Your task to perform on an android device: Open Wikipedia Image 0: 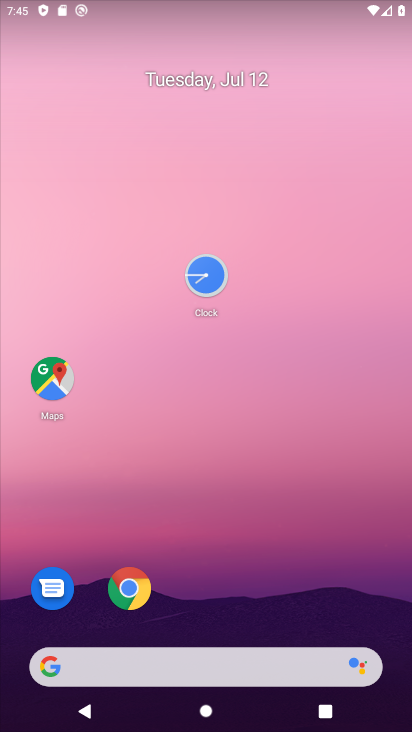
Step 0: drag from (282, 596) to (142, 0)
Your task to perform on an android device: Open Wikipedia Image 1: 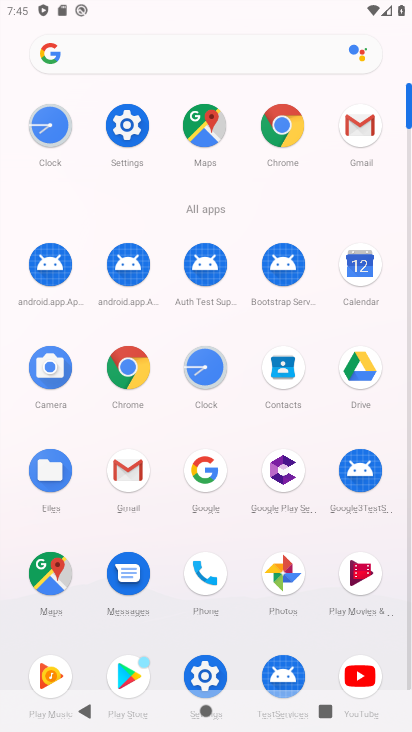
Step 1: click (291, 128)
Your task to perform on an android device: Open Wikipedia Image 2: 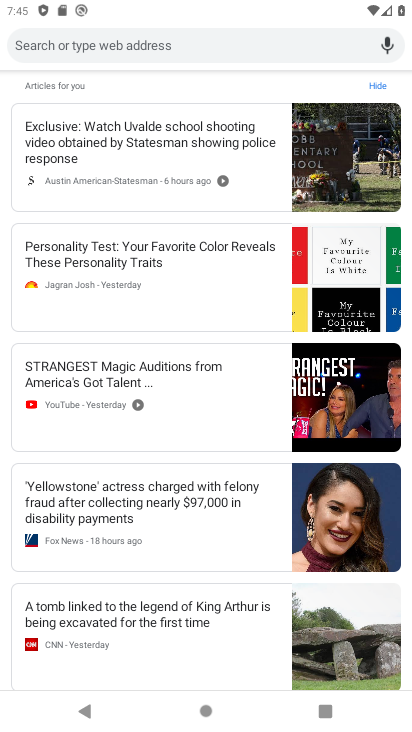
Step 2: drag from (139, 181) to (285, 669)
Your task to perform on an android device: Open Wikipedia Image 3: 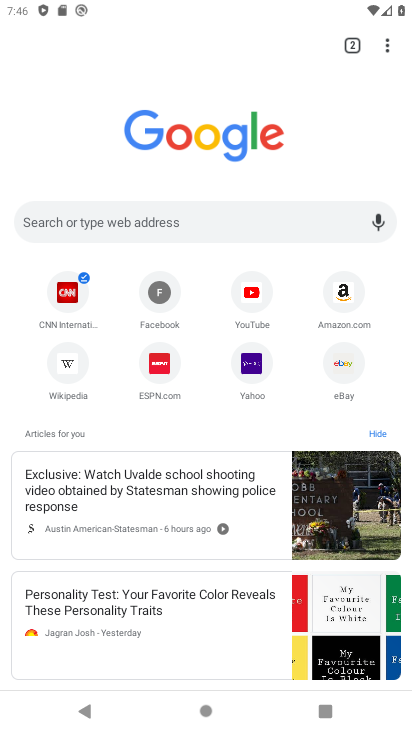
Step 3: click (74, 372)
Your task to perform on an android device: Open Wikipedia Image 4: 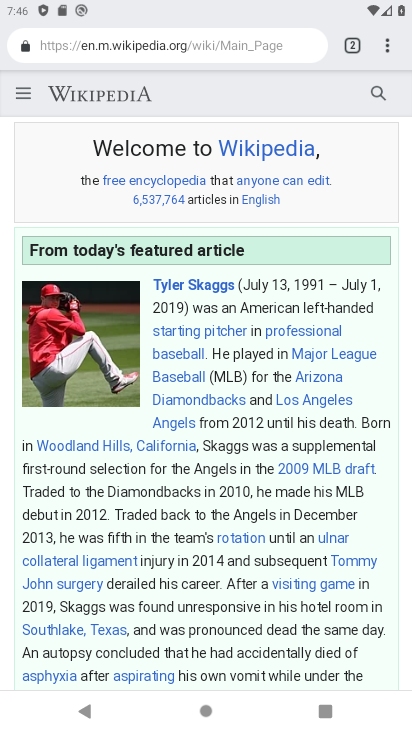
Step 4: task complete